Your task to perform on an android device: change the upload size in google photos Image 0: 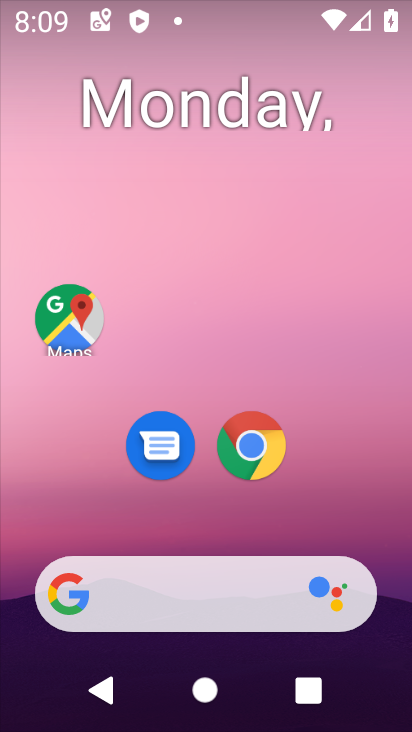
Step 0: drag from (159, 533) to (270, 53)
Your task to perform on an android device: change the upload size in google photos Image 1: 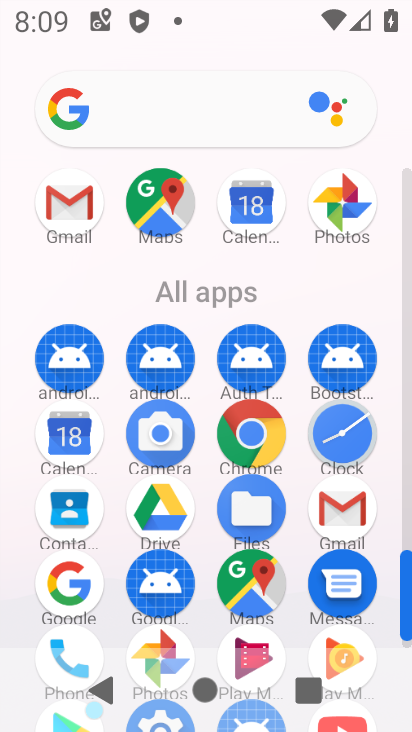
Step 1: click (350, 211)
Your task to perform on an android device: change the upload size in google photos Image 2: 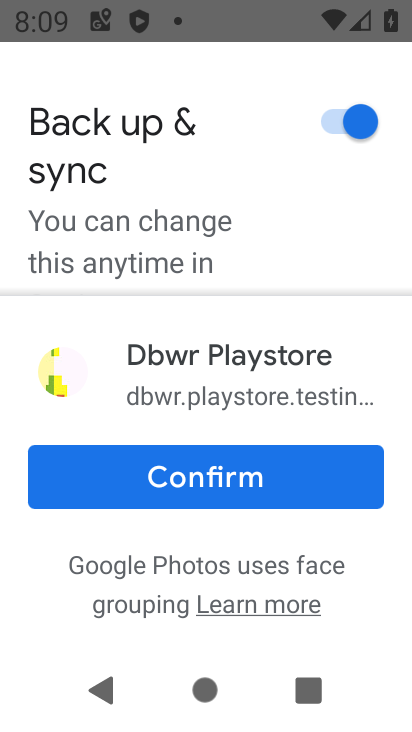
Step 2: click (247, 471)
Your task to perform on an android device: change the upload size in google photos Image 3: 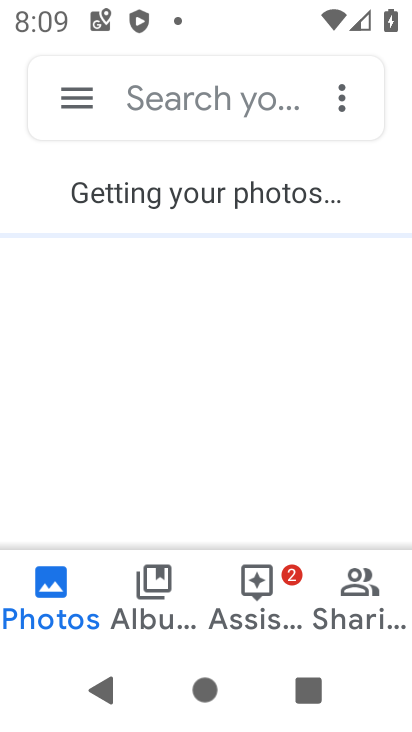
Step 3: click (94, 107)
Your task to perform on an android device: change the upload size in google photos Image 4: 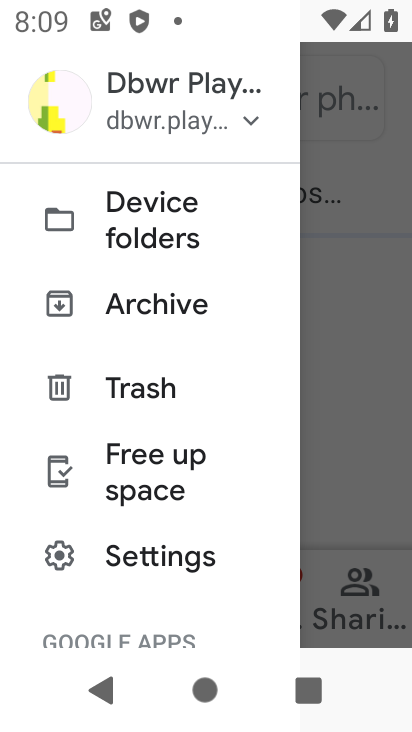
Step 4: click (184, 570)
Your task to perform on an android device: change the upload size in google photos Image 5: 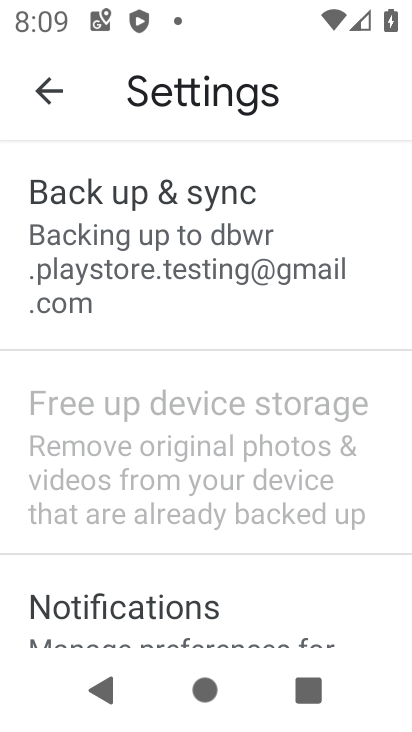
Step 5: click (185, 263)
Your task to perform on an android device: change the upload size in google photos Image 6: 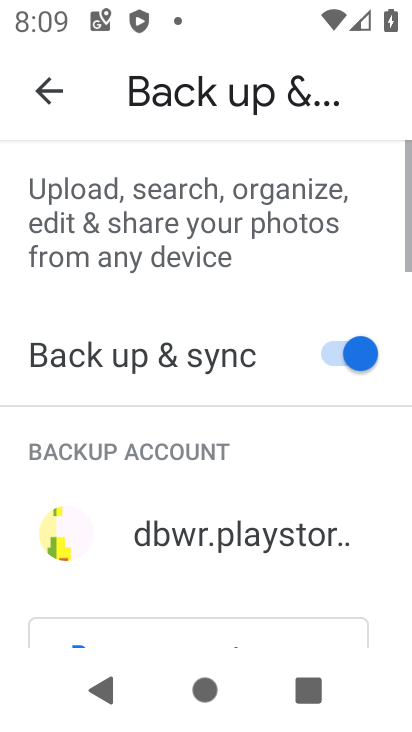
Step 6: drag from (180, 533) to (309, 13)
Your task to perform on an android device: change the upload size in google photos Image 7: 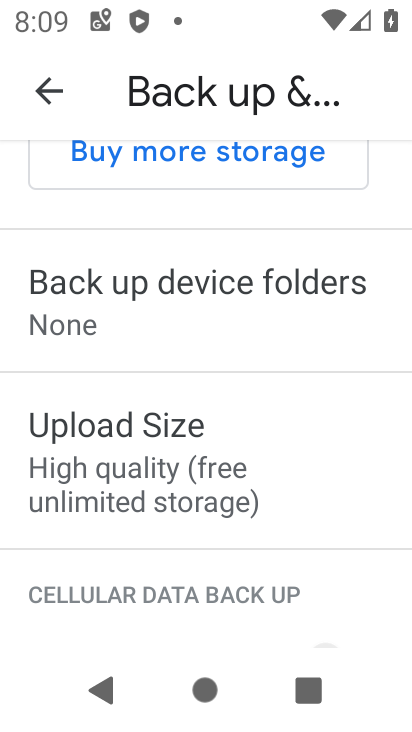
Step 7: click (223, 446)
Your task to perform on an android device: change the upload size in google photos Image 8: 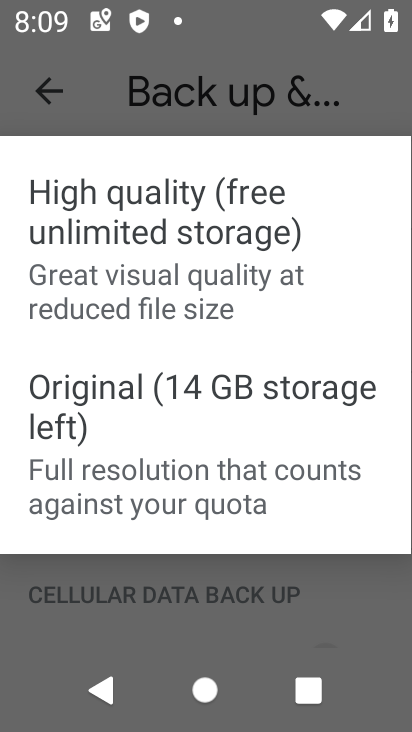
Step 8: click (227, 425)
Your task to perform on an android device: change the upload size in google photos Image 9: 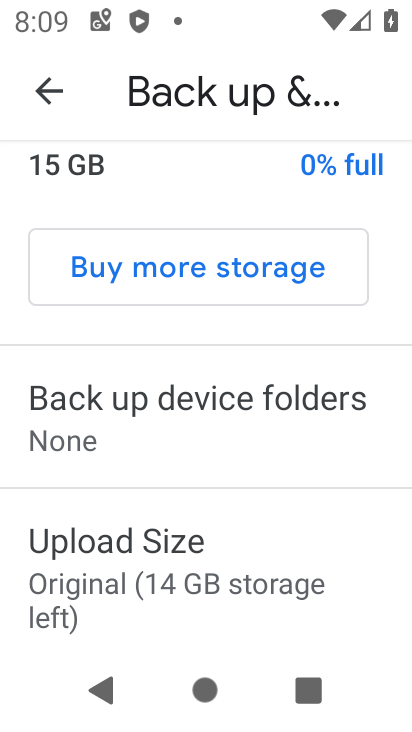
Step 9: task complete